Your task to perform on an android device: Go to Yahoo.com Image 0: 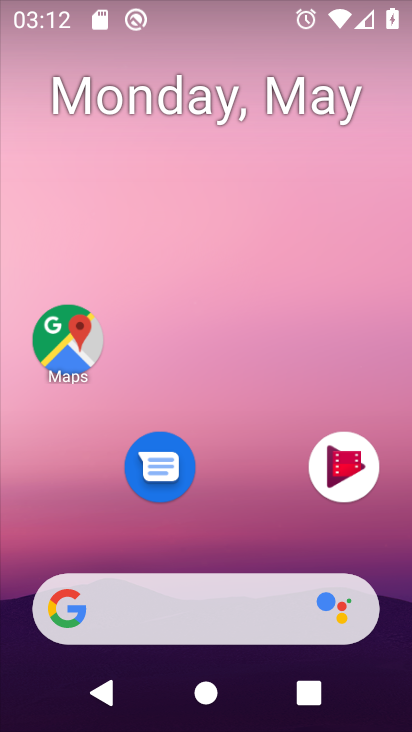
Step 0: drag from (237, 552) to (273, 126)
Your task to perform on an android device: Go to Yahoo.com Image 1: 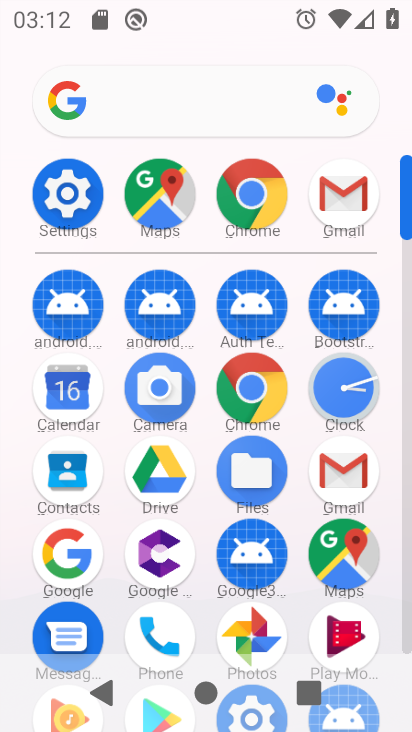
Step 1: click (240, 192)
Your task to perform on an android device: Go to Yahoo.com Image 2: 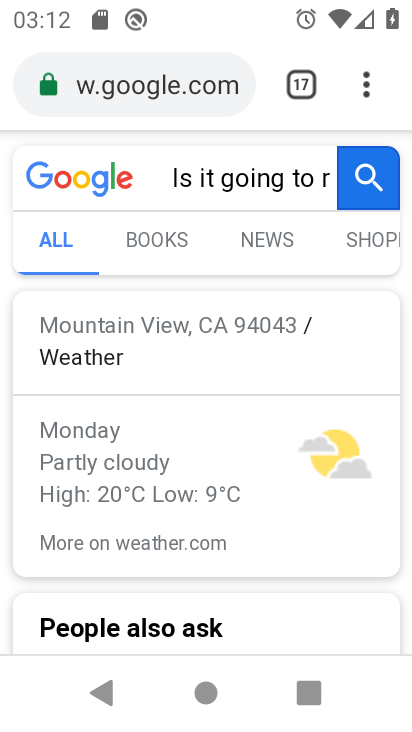
Step 2: click (290, 73)
Your task to perform on an android device: Go to Yahoo.com Image 3: 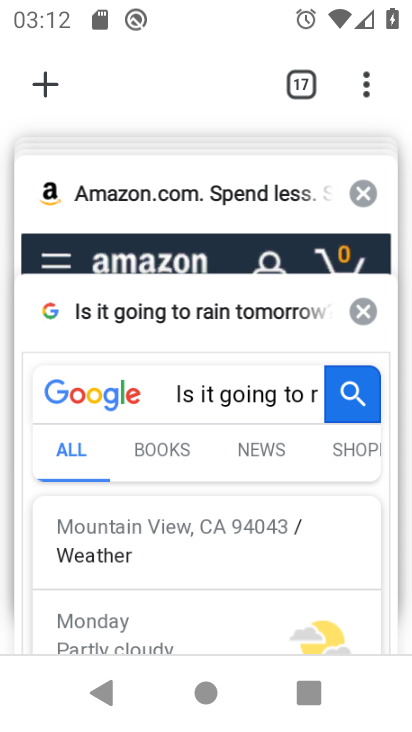
Step 3: drag from (148, 215) to (151, 493)
Your task to perform on an android device: Go to Yahoo.com Image 4: 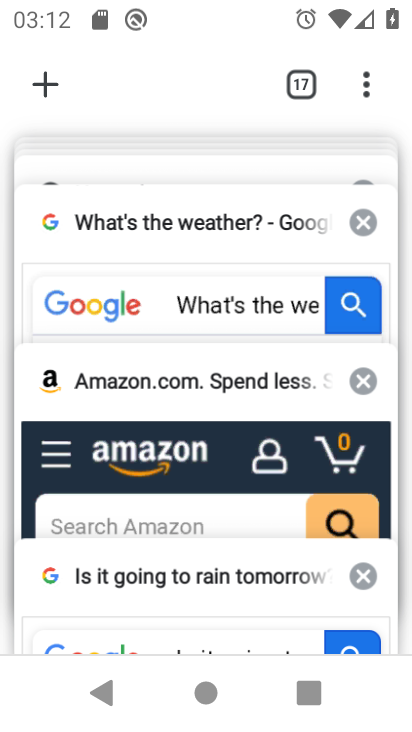
Step 4: drag from (191, 217) to (165, 559)
Your task to perform on an android device: Go to Yahoo.com Image 5: 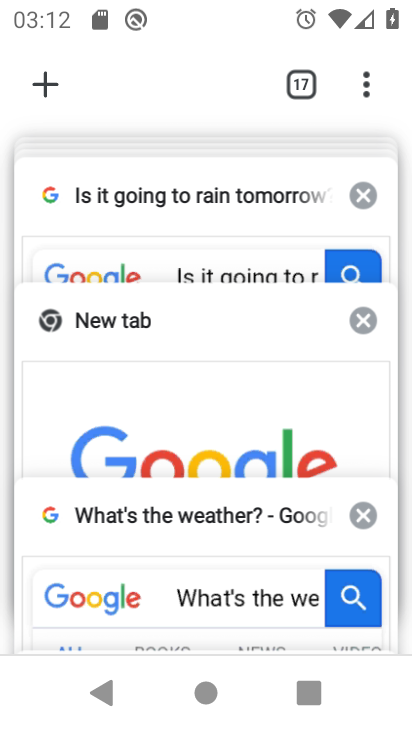
Step 5: drag from (201, 251) to (178, 564)
Your task to perform on an android device: Go to Yahoo.com Image 6: 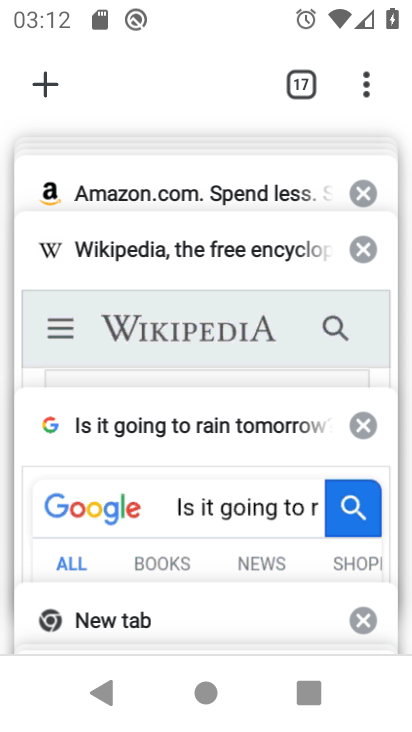
Step 6: drag from (176, 257) to (188, 593)
Your task to perform on an android device: Go to Yahoo.com Image 7: 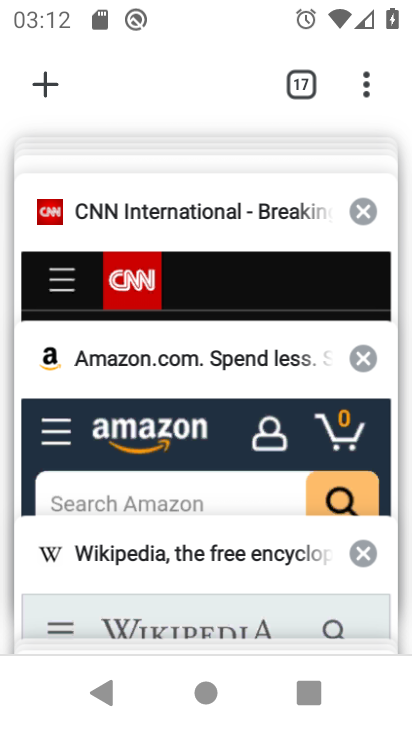
Step 7: drag from (183, 323) to (178, 635)
Your task to perform on an android device: Go to Yahoo.com Image 8: 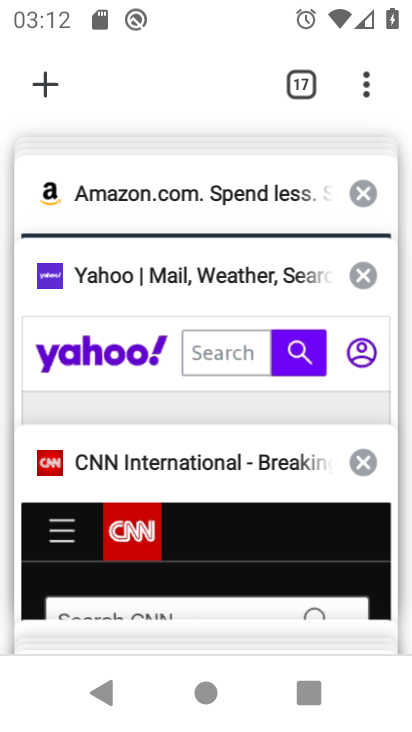
Step 8: click (161, 290)
Your task to perform on an android device: Go to Yahoo.com Image 9: 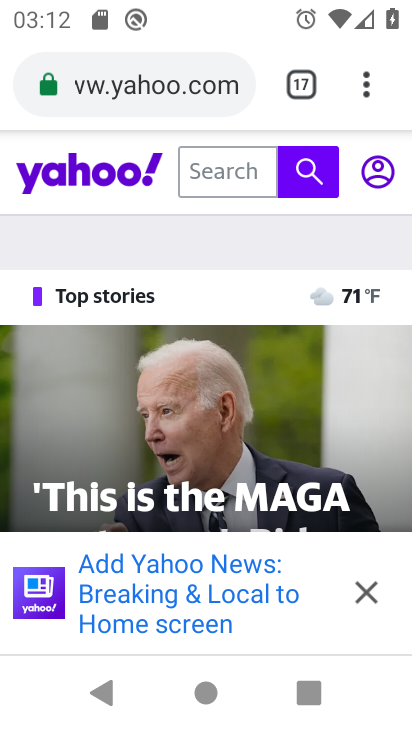
Step 9: click (368, 591)
Your task to perform on an android device: Go to Yahoo.com Image 10: 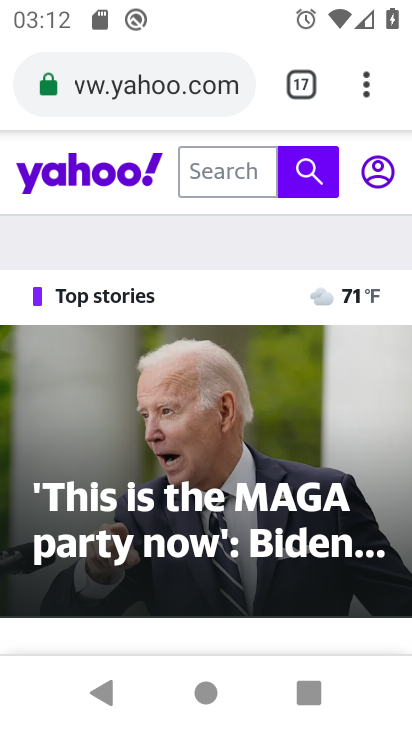
Step 10: task complete